Your task to perform on an android device: What's on my calendar tomorrow? Image 0: 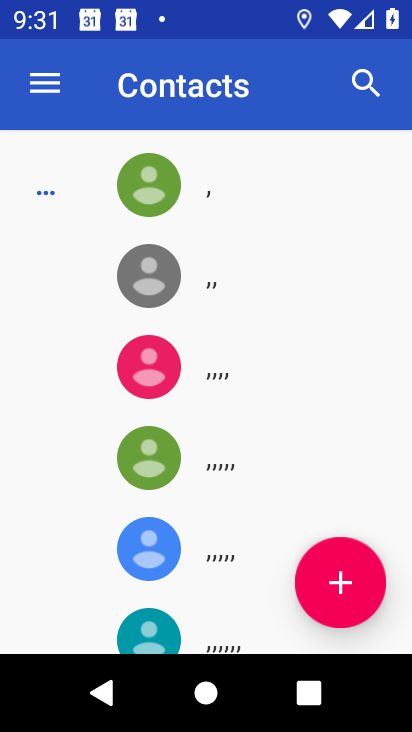
Step 0: press home button
Your task to perform on an android device: What's on my calendar tomorrow? Image 1: 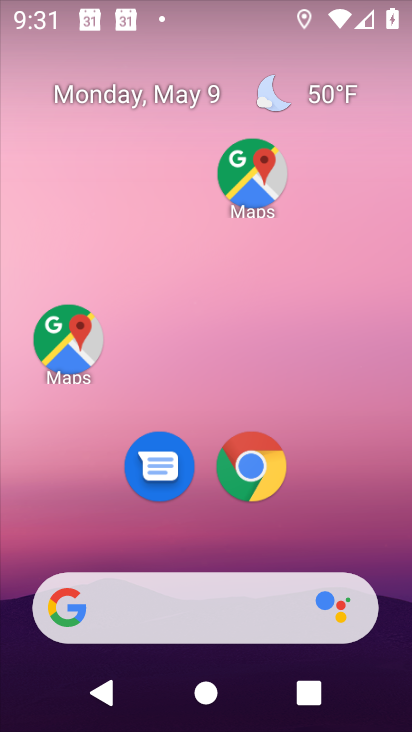
Step 1: drag from (305, 556) to (317, 1)
Your task to perform on an android device: What's on my calendar tomorrow? Image 2: 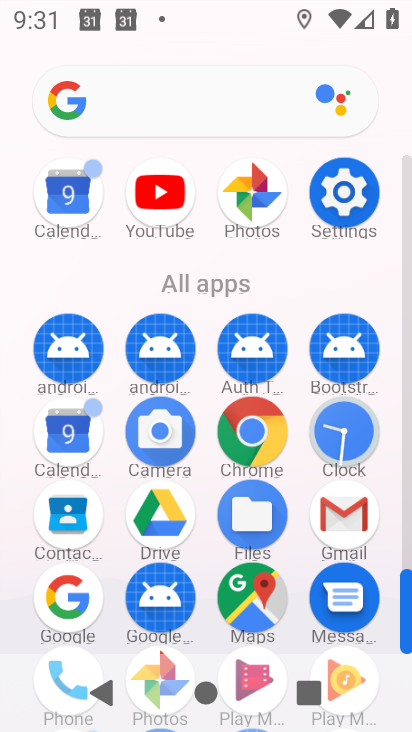
Step 2: click (81, 432)
Your task to perform on an android device: What's on my calendar tomorrow? Image 3: 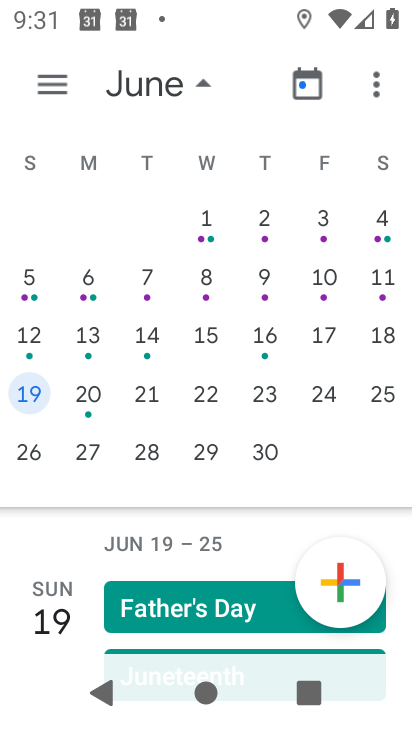
Step 3: click (28, 362)
Your task to perform on an android device: What's on my calendar tomorrow? Image 4: 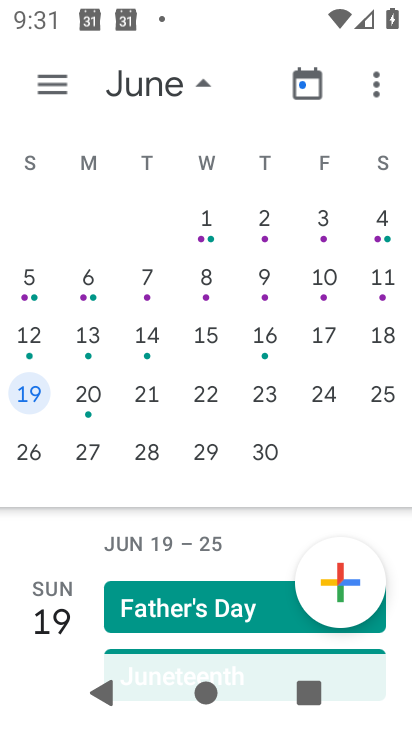
Step 4: drag from (112, 285) to (398, 303)
Your task to perform on an android device: What's on my calendar tomorrow? Image 5: 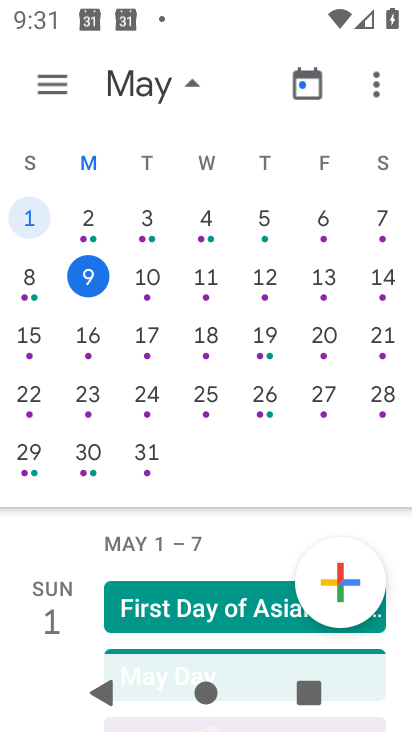
Step 5: click (141, 278)
Your task to perform on an android device: What's on my calendar tomorrow? Image 6: 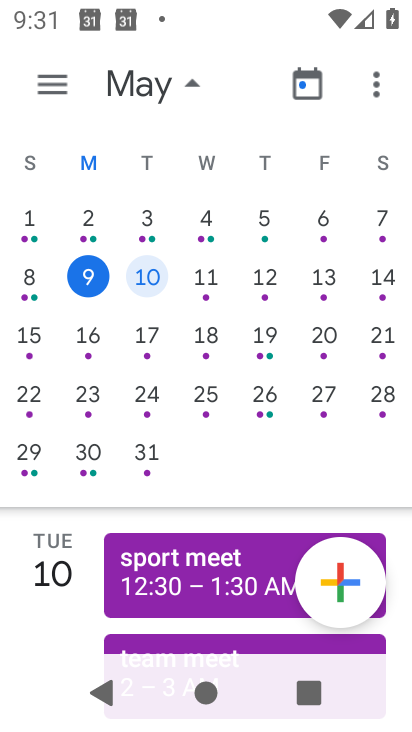
Step 6: task complete